Your task to perform on an android device: Go to Android settings Image 0: 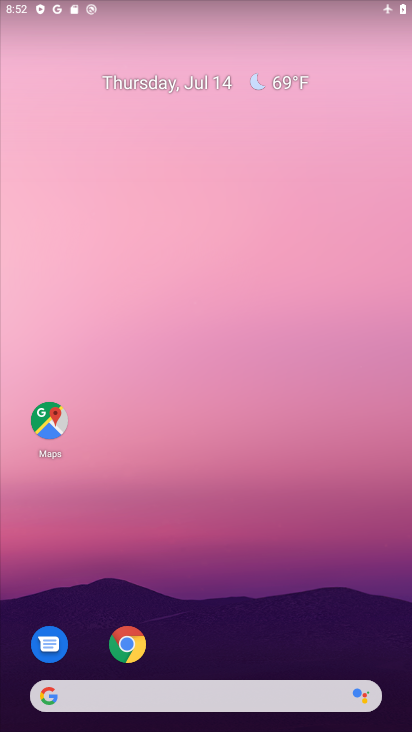
Step 0: drag from (200, 645) to (308, 1)
Your task to perform on an android device: Go to Android settings Image 1: 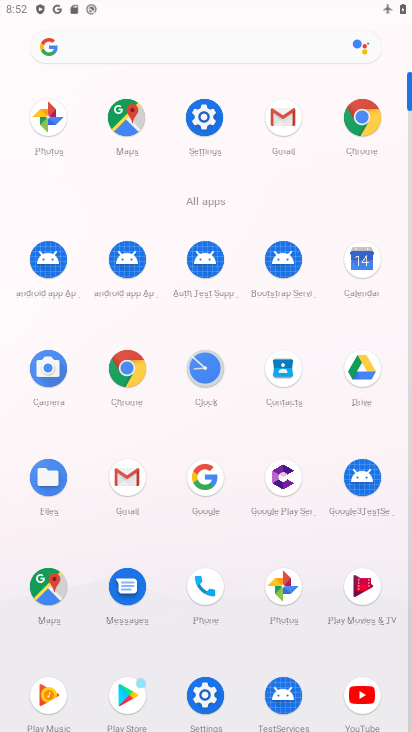
Step 1: click (210, 114)
Your task to perform on an android device: Go to Android settings Image 2: 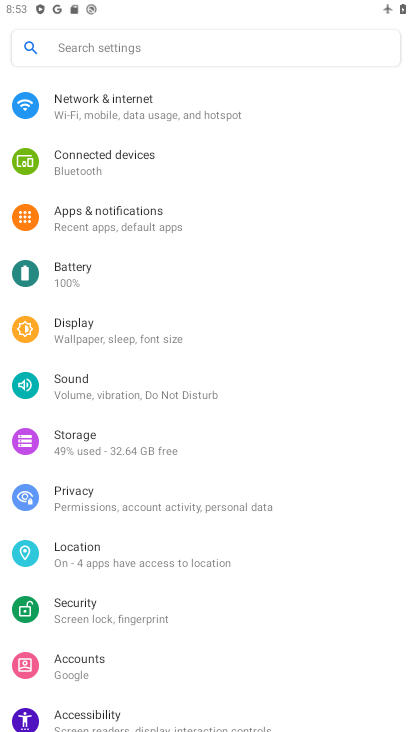
Step 2: task complete